Your task to perform on an android device: turn on location history Image 0: 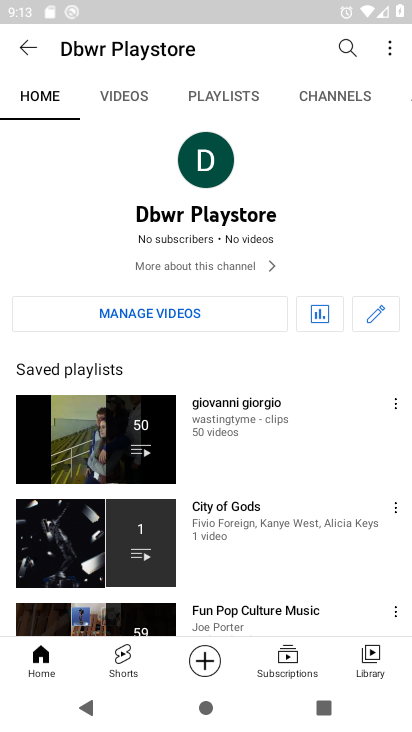
Step 0: press home button
Your task to perform on an android device: turn on location history Image 1: 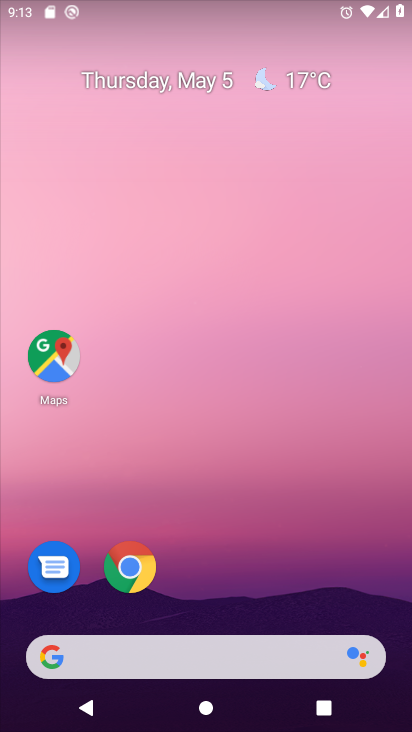
Step 1: drag from (262, 548) to (294, 32)
Your task to perform on an android device: turn on location history Image 2: 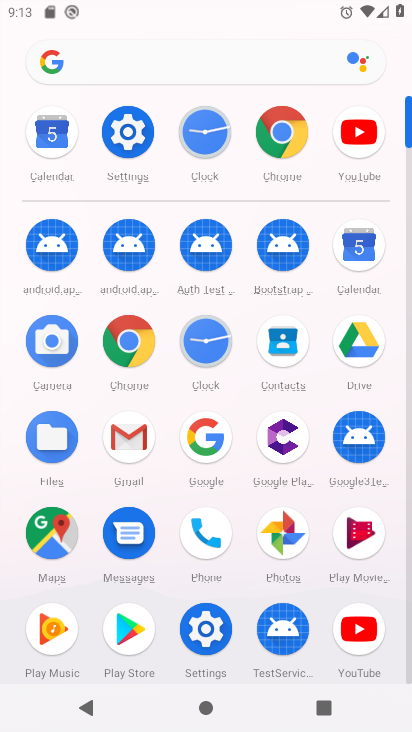
Step 2: click (208, 641)
Your task to perform on an android device: turn on location history Image 3: 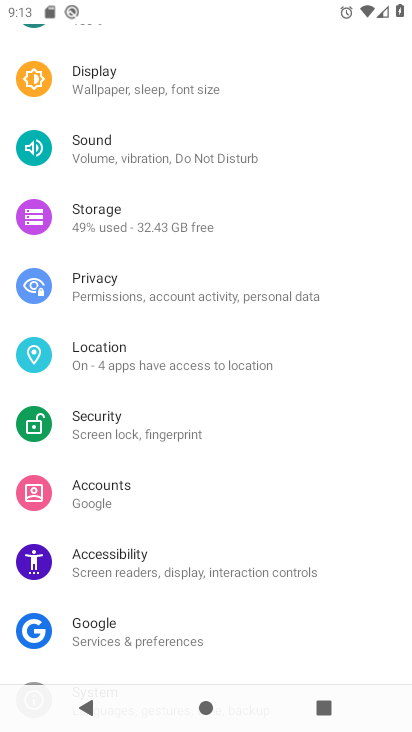
Step 3: click (188, 360)
Your task to perform on an android device: turn on location history Image 4: 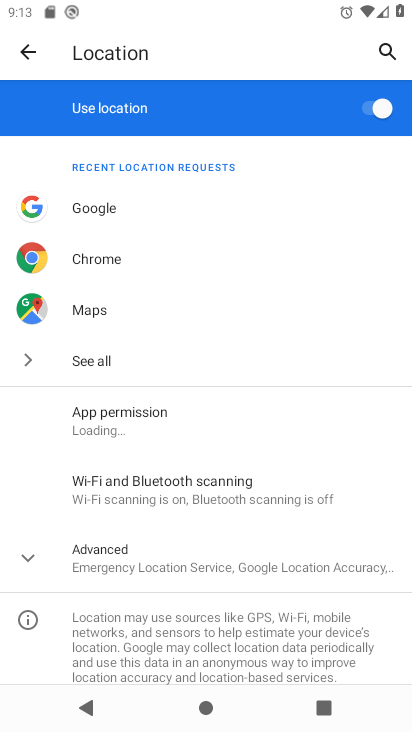
Step 4: click (26, 552)
Your task to perform on an android device: turn on location history Image 5: 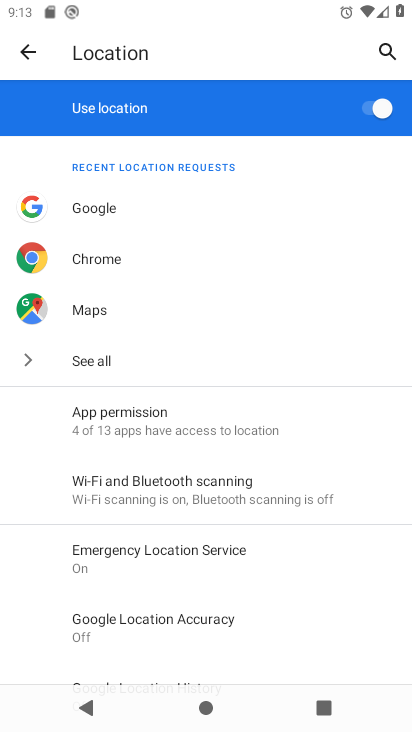
Step 5: drag from (296, 600) to (290, 417)
Your task to perform on an android device: turn on location history Image 6: 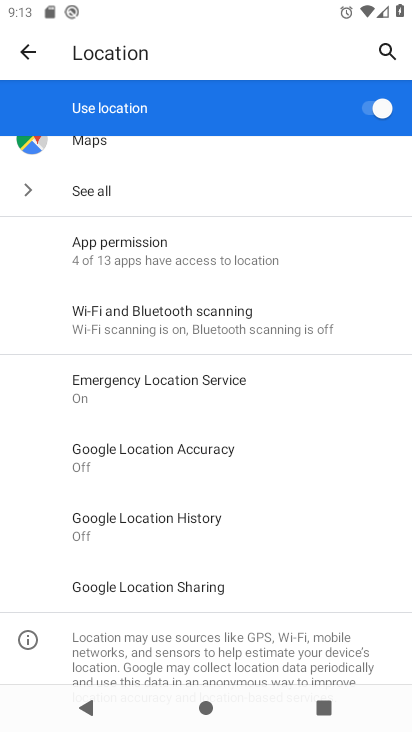
Step 6: click (191, 528)
Your task to perform on an android device: turn on location history Image 7: 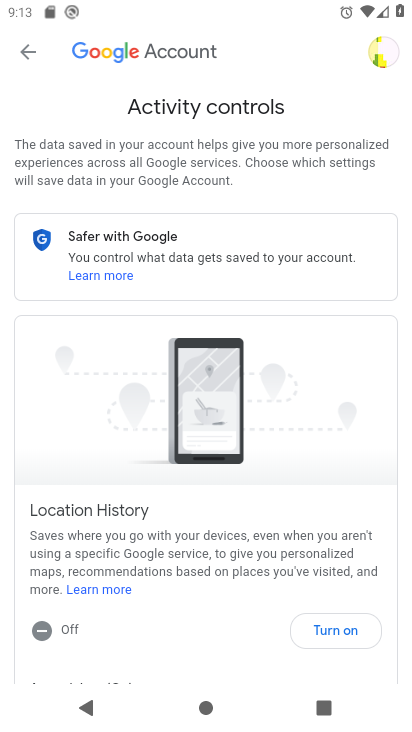
Step 7: click (346, 619)
Your task to perform on an android device: turn on location history Image 8: 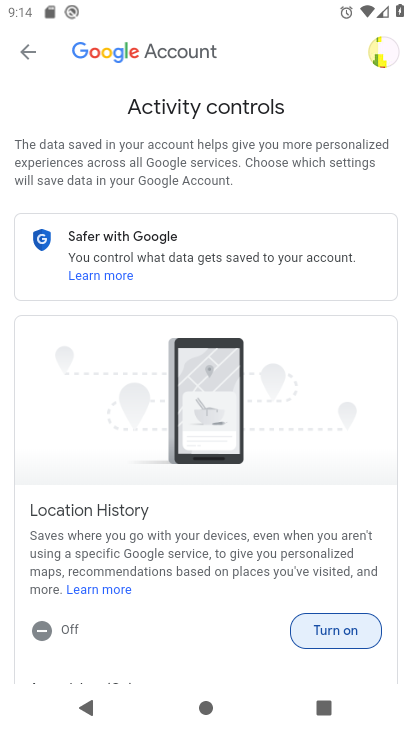
Step 8: click (352, 631)
Your task to perform on an android device: turn on location history Image 9: 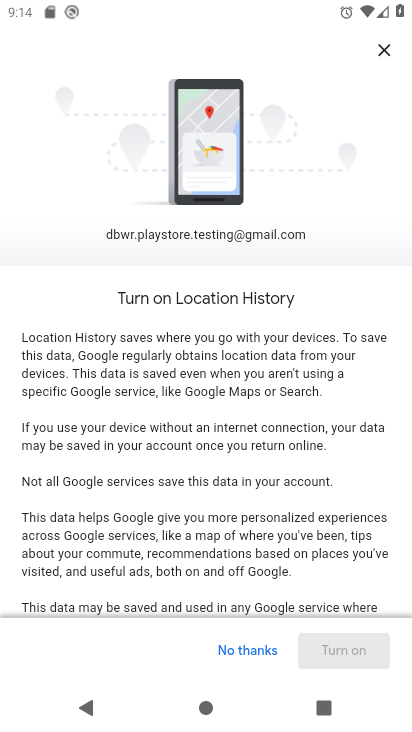
Step 9: drag from (321, 549) to (292, 259)
Your task to perform on an android device: turn on location history Image 10: 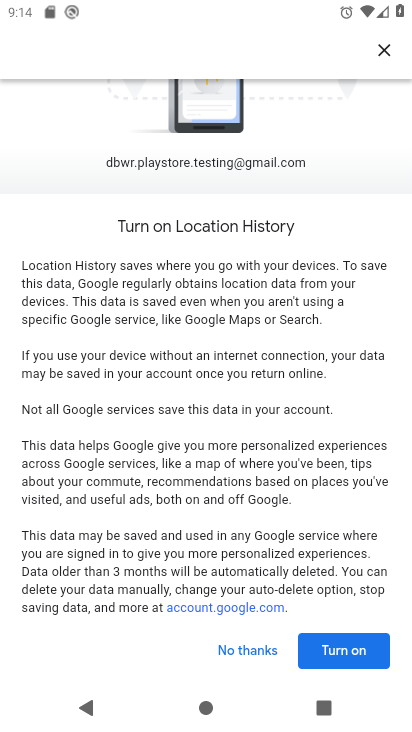
Step 10: click (344, 651)
Your task to perform on an android device: turn on location history Image 11: 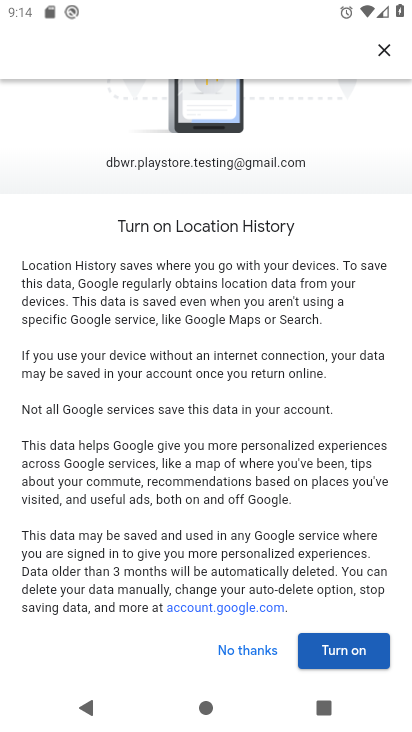
Step 11: click (344, 647)
Your task to perform on an android device: turn on location history Image 12: 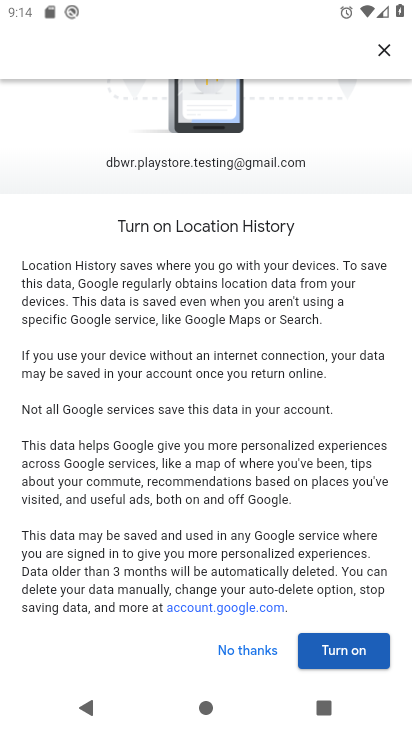
Step 12: click (344, 644)
Your task to perform on an android device: turn on location history Image 13: 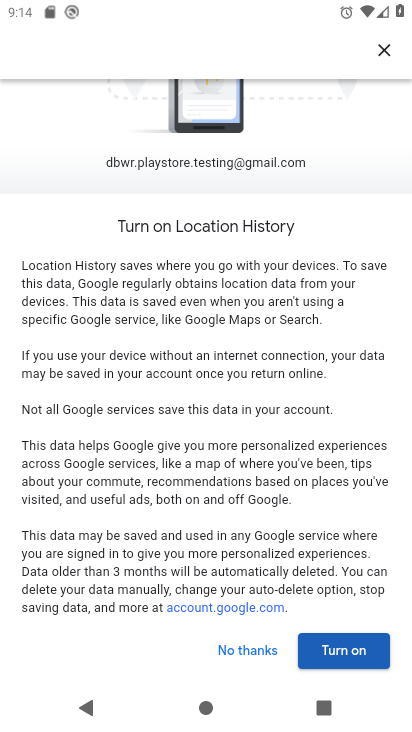
Step 13: drag from (327, 546) to (307, 295)
Your task to perform on an android device: turn on location history Image 14: 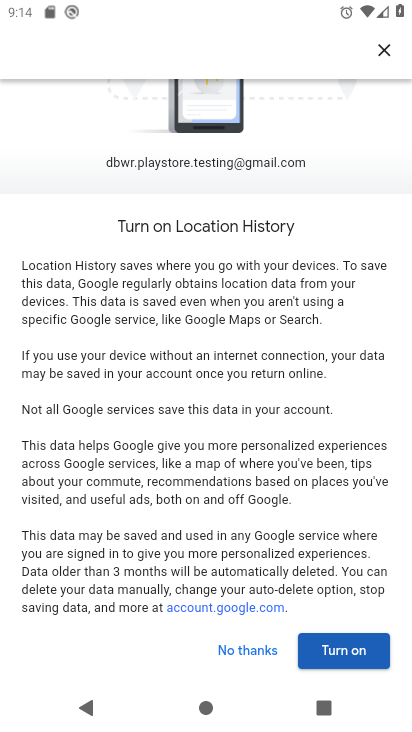
Step 14: click (351, 646)
Your task to perform on an android device: turn on location history Image 15: 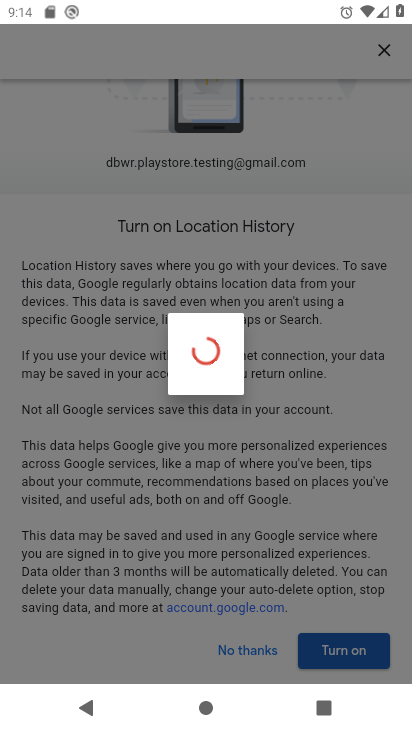
Step 15: click (367, 659)
Your task to perform on an android device: turn on location history Image 16: 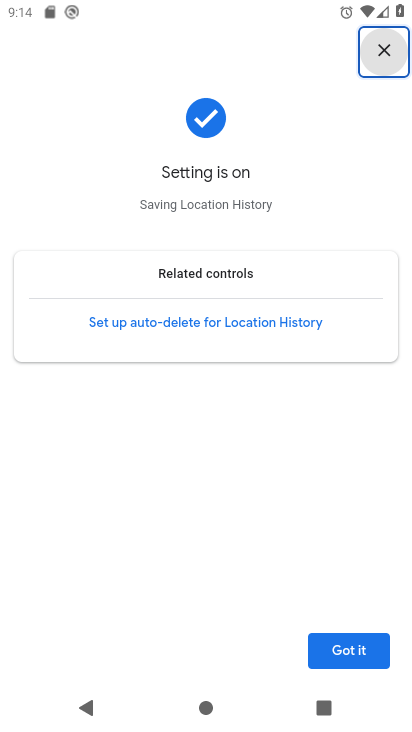
Step 16: click (365, 649)
Your task to perform on an android device: turn on location history Image 17: 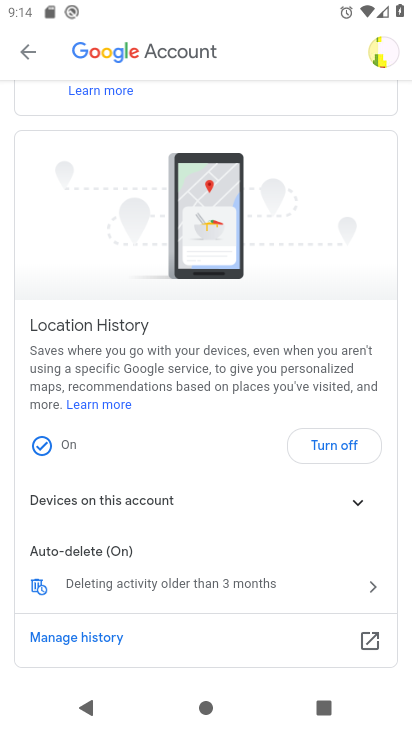
Step 17: task complete